Your task to perform on an android device: Go to location settings Image 0: 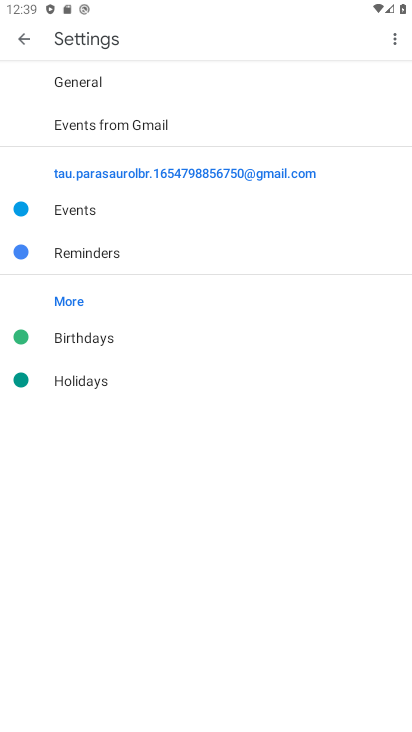
Step 0: press home button
Your task to perform on an android device: Go to location settings Image 1: 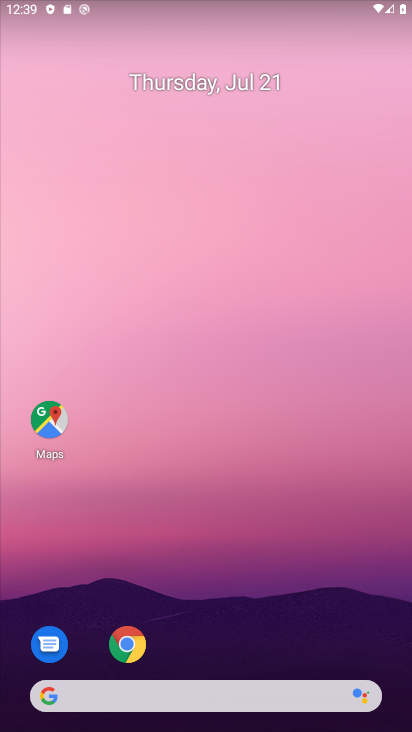
Step 1: drag from (231, 653) to (282, 112)
Your task to perform on an android device: Go to location settings Image 2: 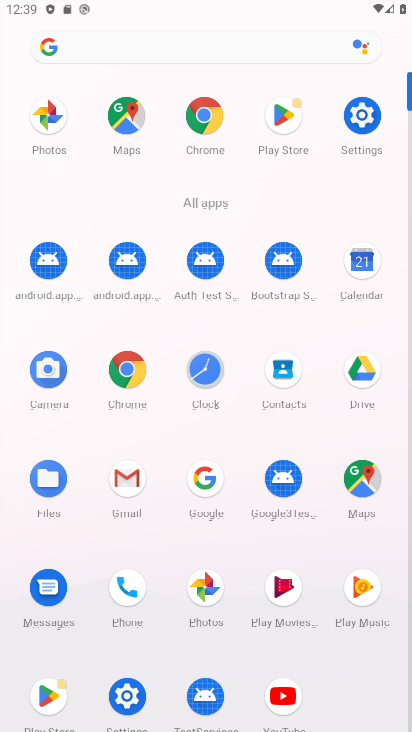
Step 2: click (130, 684)
Your task to perform on an android device: Go to location settings Image 3: 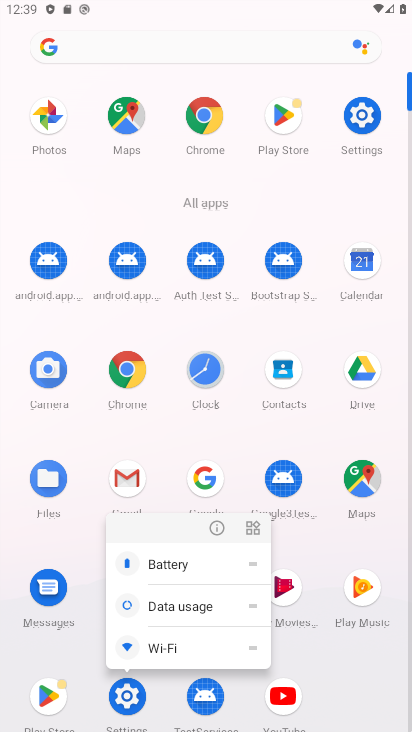
Step 3: click (133, 698)
Your task to perform on an android device: Go to location settings Image 4: 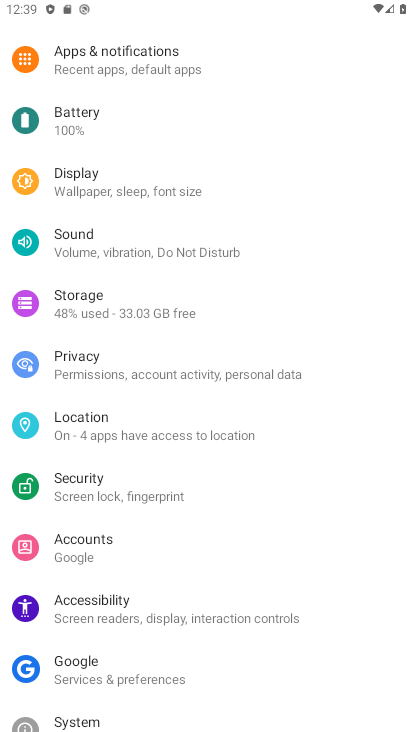
Step 4: click (76, 417)
Your task to perform on an android device: Go to location settings Image 5: 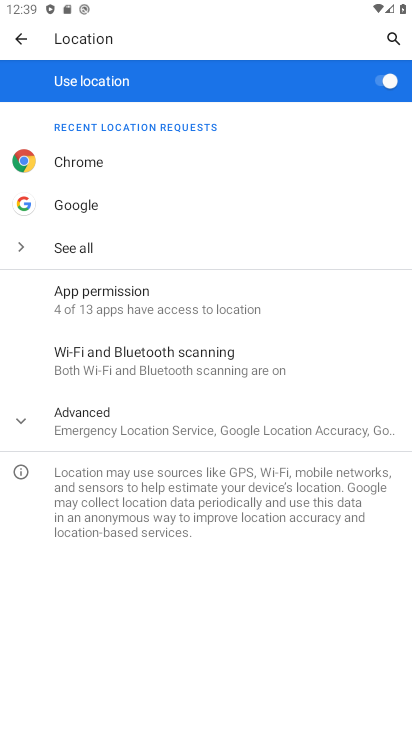
Step 5: task complete